Your task to perform on an android device: turn off translation in the chrome app Image 0: 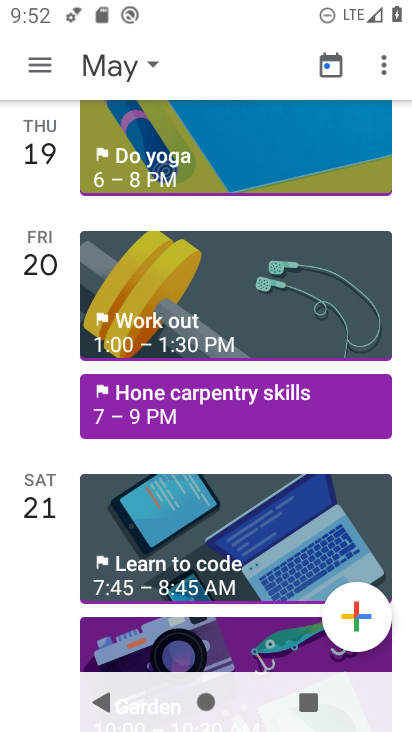
Step 0: press home button
Your task to perform on an android device: turn off translation in the chrome app Image 1: 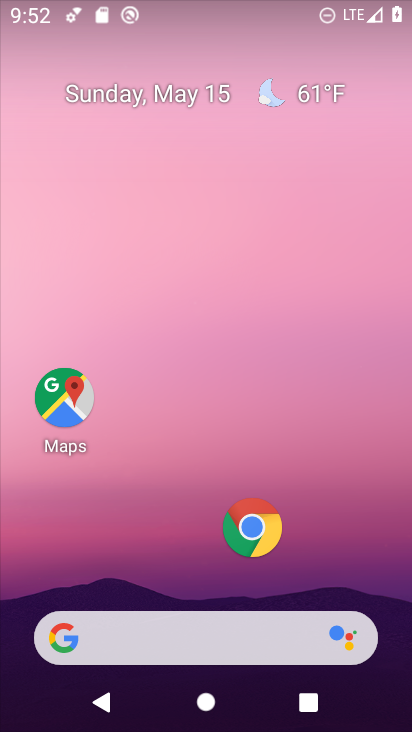
Step 1: click (251, 519)
Your task to perform on an android device: turn off translation in the chrome app Image 2: 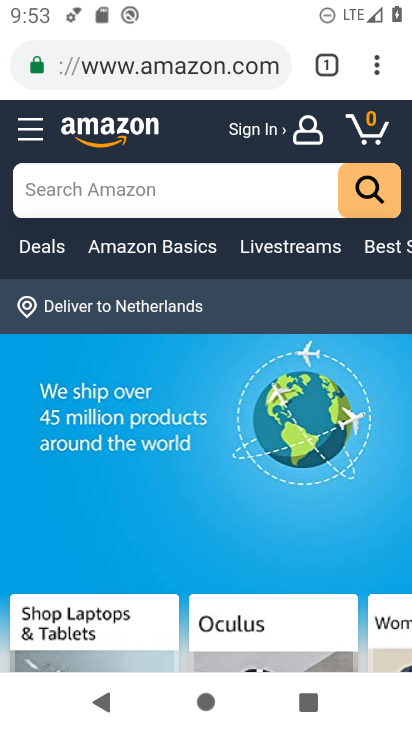
Step 2: click (377, 63)
Your task to perform on an android device: turn off translation in the chrome app Image 3: 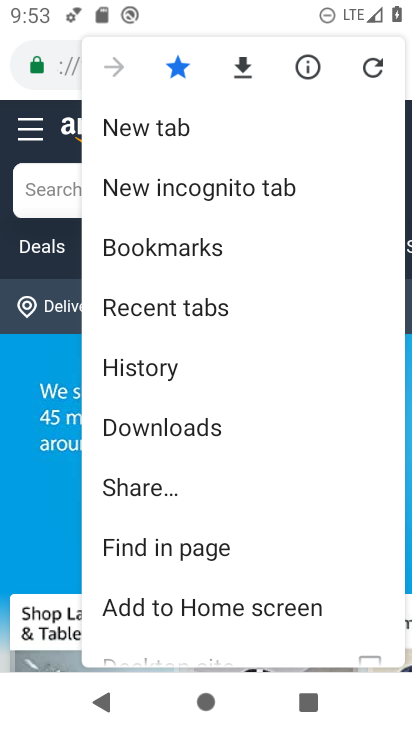
Step 3: drag from (259, 582) to (245, 57)
Your task to perform on an android device: turn off translation in the chrome app Image 4: 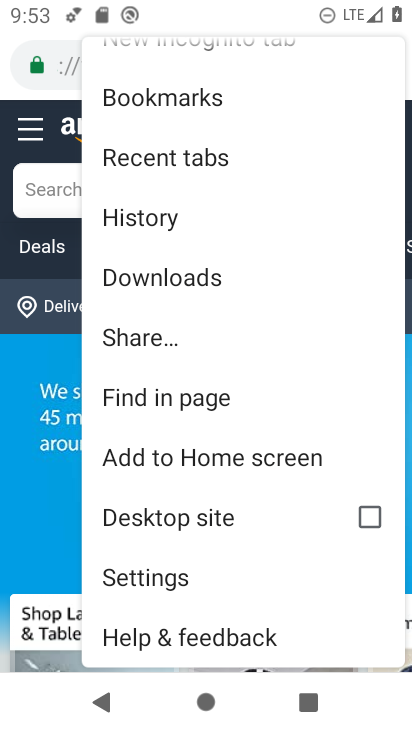
Step 4: click (195, 568)
Your task to perform on an android device: turn off translation in the chrome app Image 5: 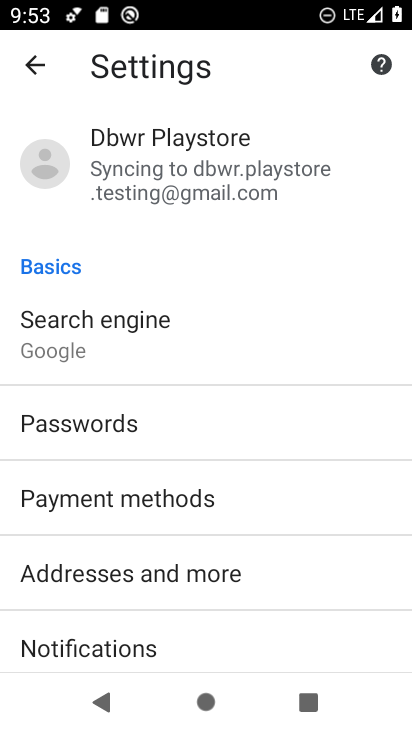
Step 5: drag from (223, 634) to (223, 101)
Your task to perform on an android device: turn off translation in the chrome app Image 6: 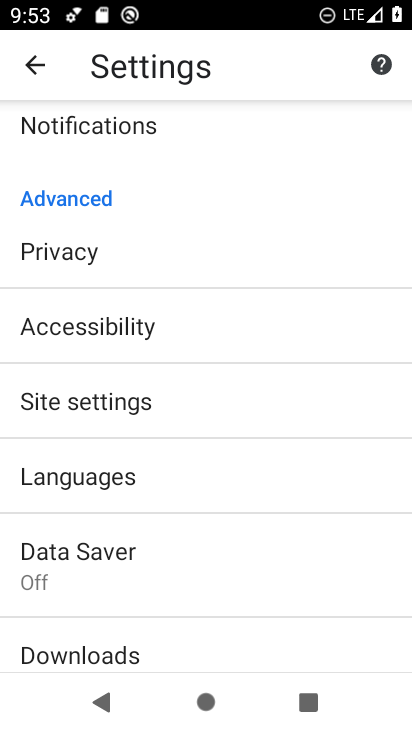
Step 6: click (148, 476)
Your task to perform on an android device: turn off translation in the chrome app Image 7: 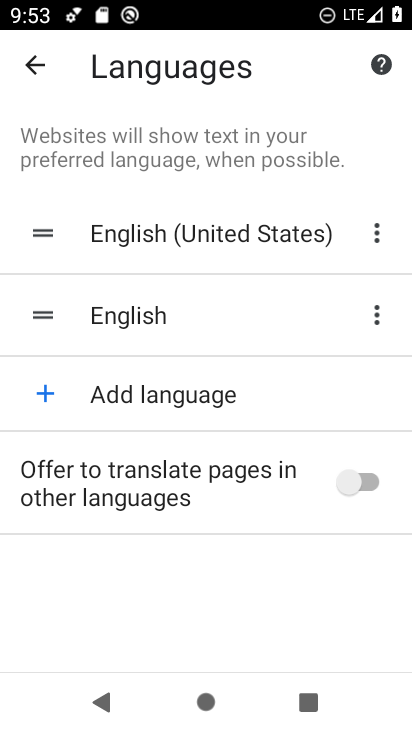
Step 7: task complete